Your task to perform on an android device: toggle improve location accuracy Image 0: 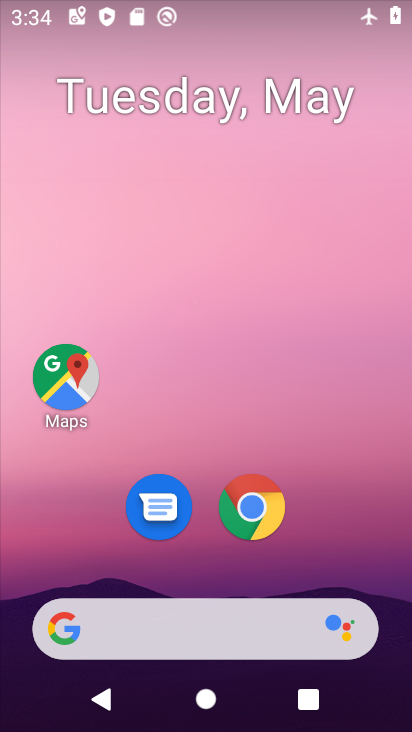
Step 0: drag from (219, 595) to (233, 12)
Your task to perform on an android device: toggle improve location accuracy Image 1: 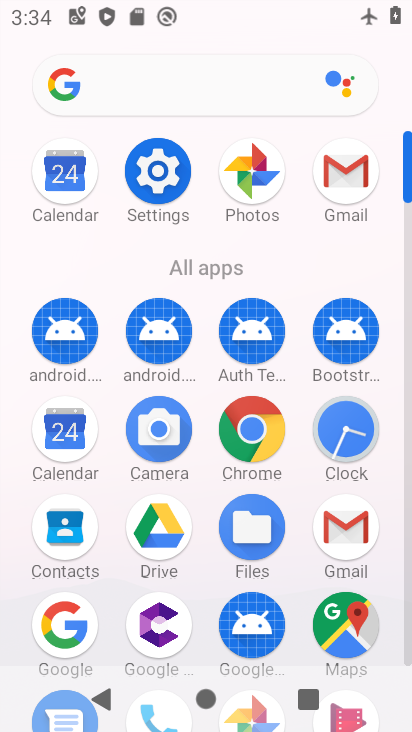
Step 1: click (152, 174)
Your task to perform on an android device: toggle improve location accuracy Image 2: 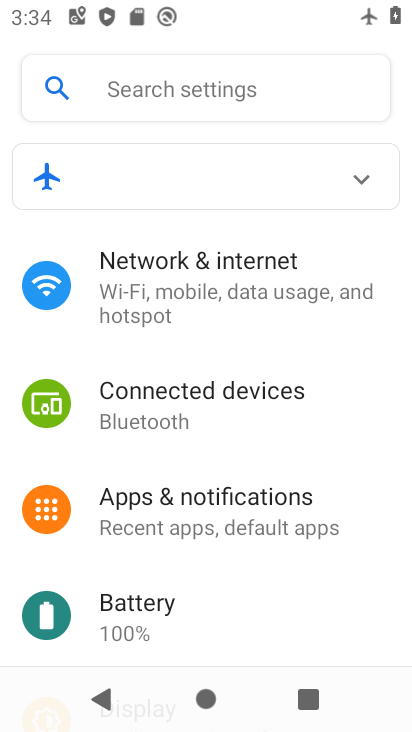
Step 2: drag from (230, 559) to (238, 278)
Your task to perform on an android device: toggle improve location accuracy Image 3: 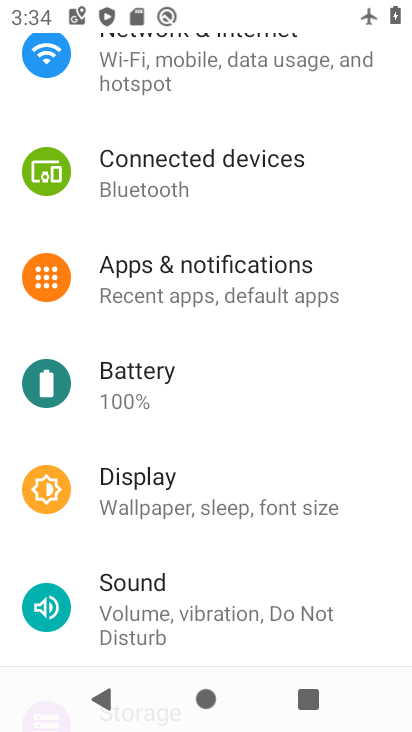
Step 3: drag from (217, 560) to (240, 241)
Your task to perform on an android device: toggle improve location accuracy Image 4: 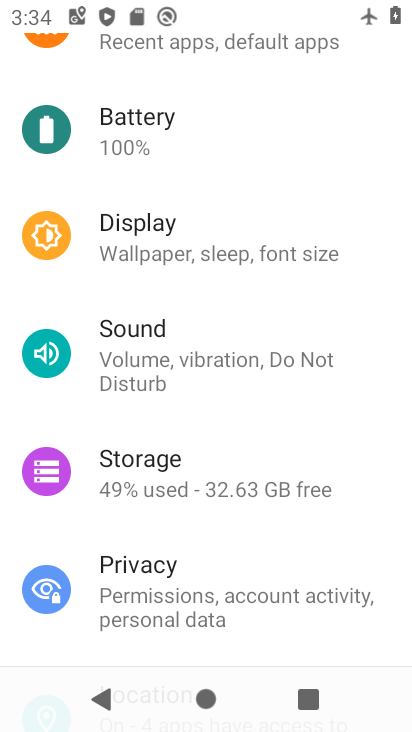
Step 4: drag from (192, 553) to (198, 236)
Your task to perform on an android device: toggle improve location accuracy Image 5: 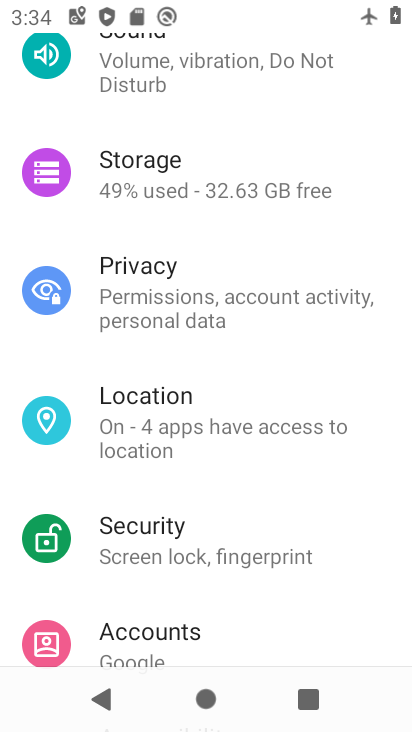
Step 5: click (184, 405)
Your task to perform on an android device: toggle improve location accuracy Image 6: 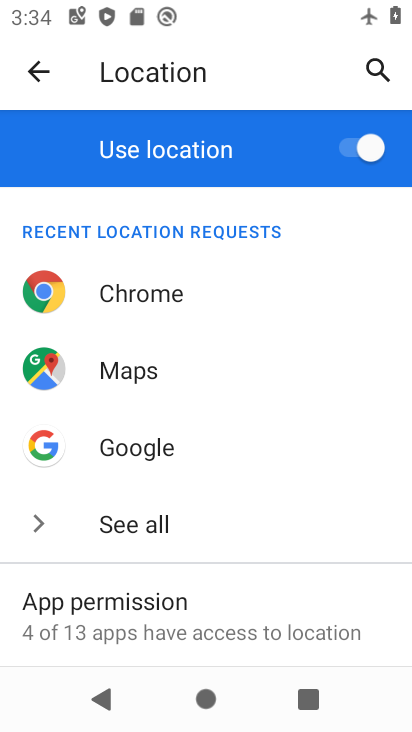
Step 6: drag from (169, 588) to (198, 264)
Your task to perform on an android device: toggle improve location accuracy Image 7: 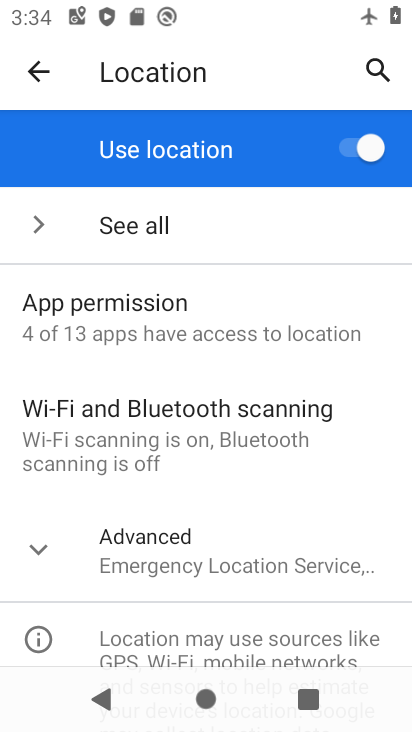
Step 7: click (212, 570)
Your task to perform on an android device: toggle improve location accuracy Image 8: 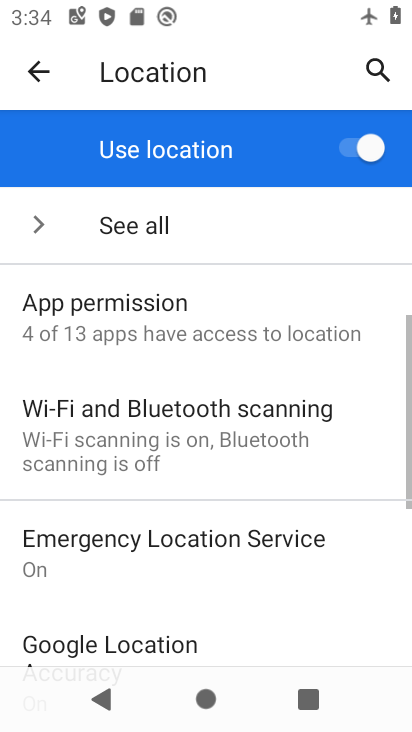
Step 8: drag from (184, 584) to (208, 408)
Your task to perform on an android device: toggle improve location accuracy Image 9: 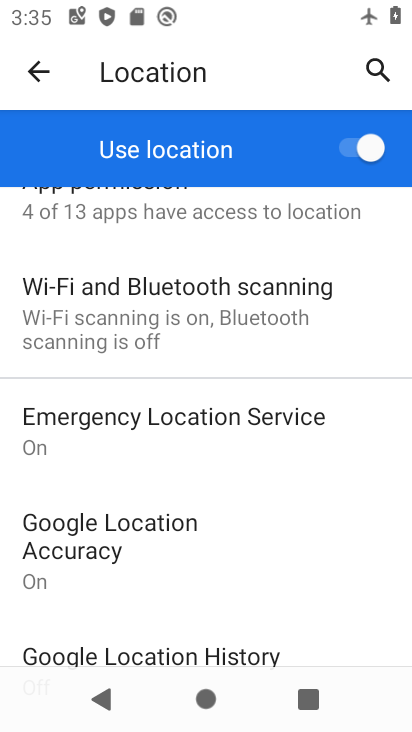
Step 9: click (162, 546)
Your task to perform on an android device: toggle improve location accuracy Image 10: 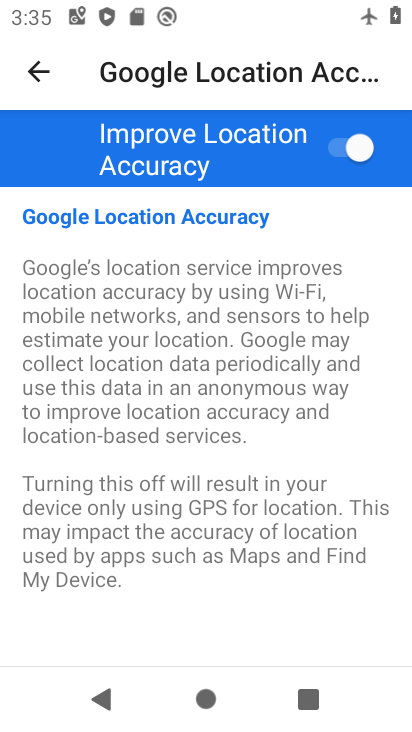
Step 10: click (342, 158)
Your task to perform on an android device: toggle improve location accuracy Image 11: 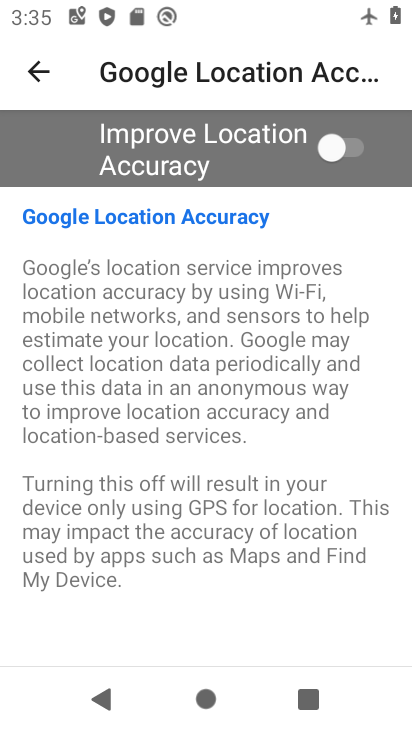
Step 11: task complete